Your task to perform on an android device: Go to calendar. Show me events next week Image 0: 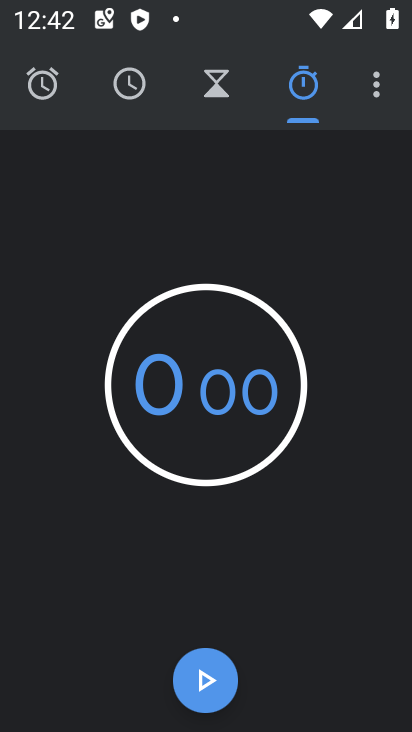
Step 0: press home button
Your task to perform on an android device: Go to calendar. Show me events next week Image 1: 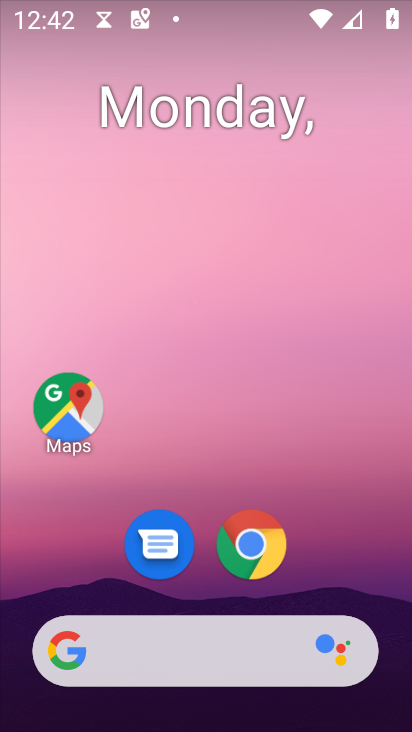
Step 1: drag from (308, 574) to (339, 167)
Your task to perform on an android device: Go to calendar. Show me events next week Image 2: 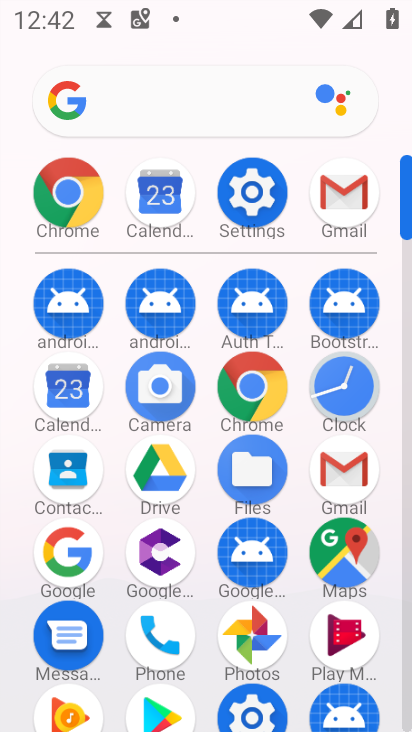
Step 2: click (68, 388)
Your task to perform on an android device: Go to calendar. Show me events next week Image 3: 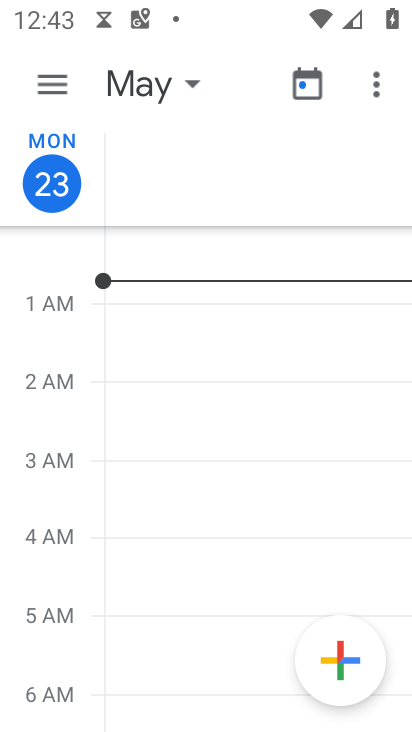
Step 3: click (51, 94)
Your task to perform on an android device: Go to calendar. Show me events next week Image 4: 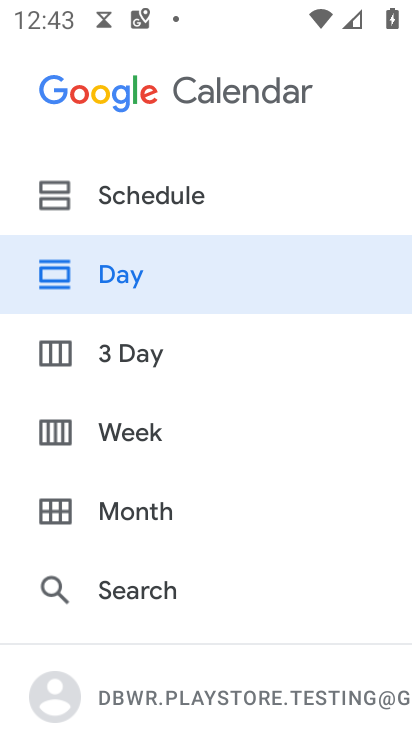
Step 4: click (144, 421)
Your task to perform on an android device: Go to calendar. Show me events next week Image 5: 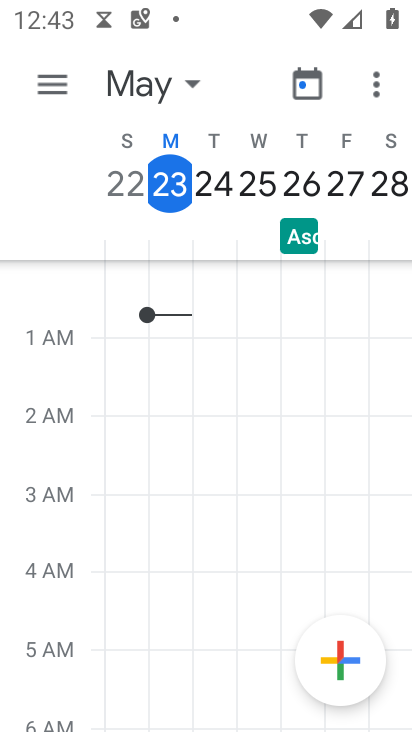
Step 5: task complete